Your task to perform on an android device: refresh tabs in the chrome app Image 0: 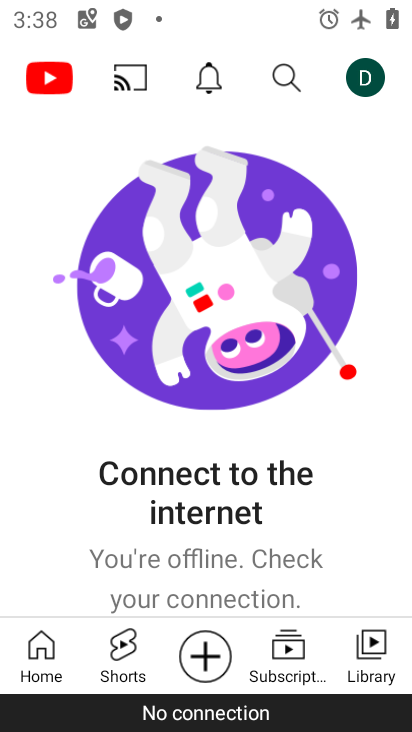
Step 0: press home button
Your task to perform on an android device: refresh tabs in the chrome app Image 1: 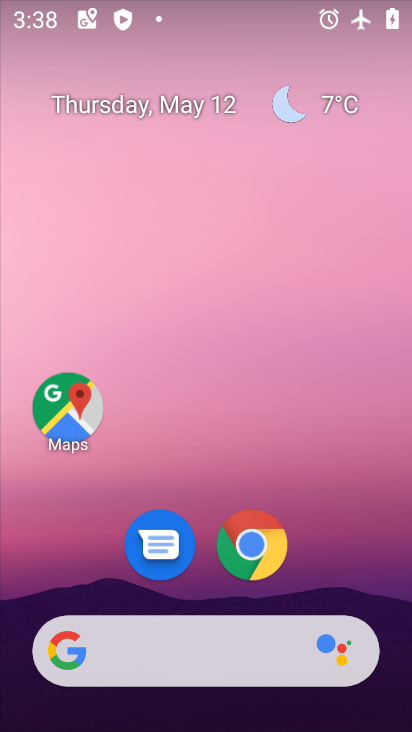
Step 1: click (253, 543)
Your task to perform on an android device: refresh tabs in the chrome app Image 2: 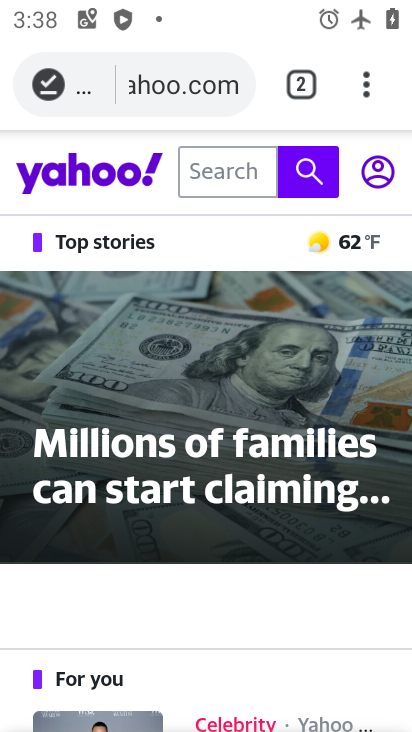
Step 2: click (363, 86)
Your task to perform on an android device: refresh tabs in the chrome app Image 3: 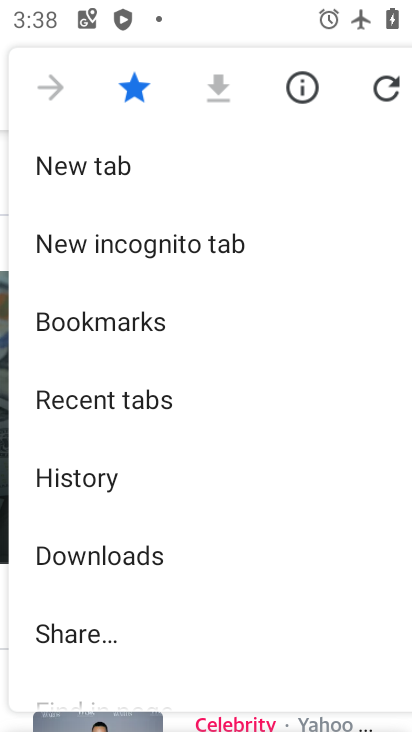
Step 3: click (390, 84)
Your task to perform on an android device: refresh tabs in the chrome app Image 4: 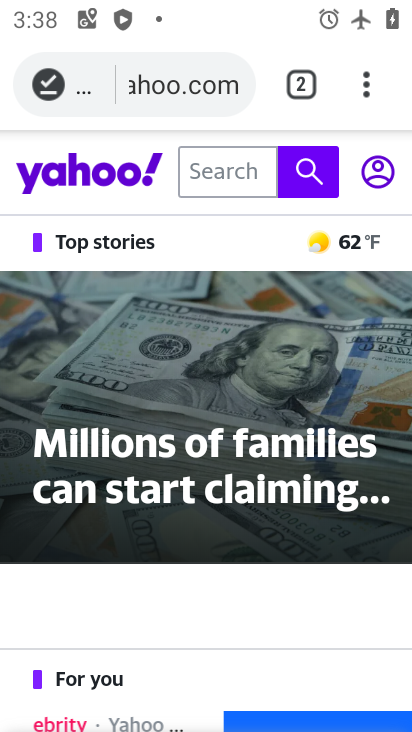
Step 4: task complete